Your task to perform on an android device: Go to network settings Image 0: 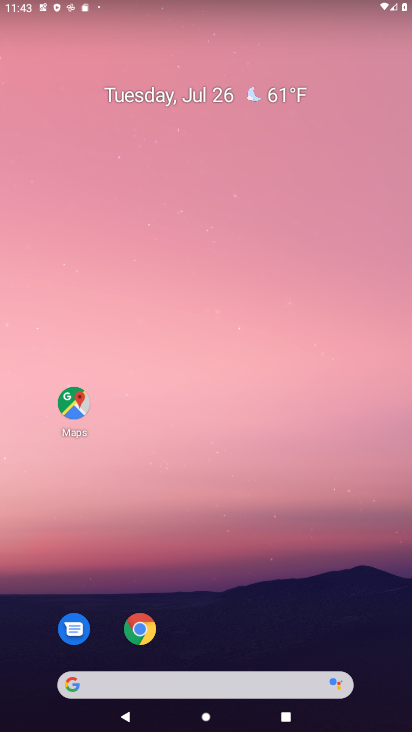
Step 0: drag from (276, 647) to (324, 85)
Your task to perform on an android device: Go to network settings Image 1: 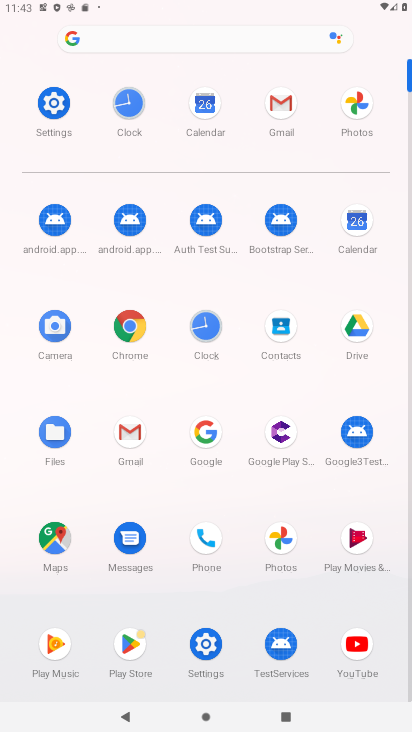
Step 1: click (57, 120)
Your task to perform on an android device: Go to network settings Image 2: 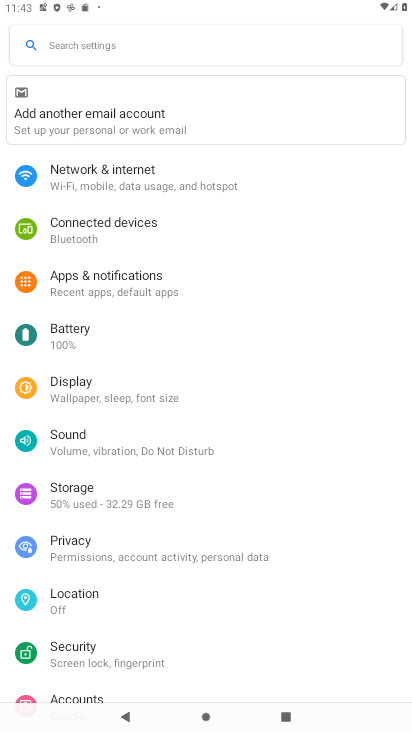
Step 2: click (87, 163)
Your task to perform on an android device: Go to network settings Image 3: 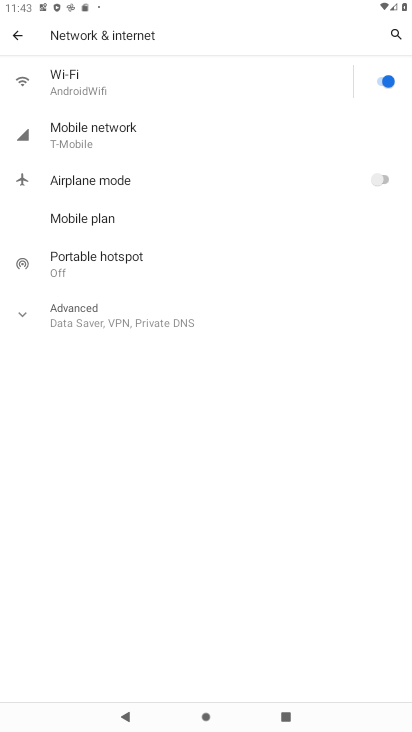
Step 3: task complete